Your task to perform on an android device: Open calendar and show me the fourth week of next month Image 0: 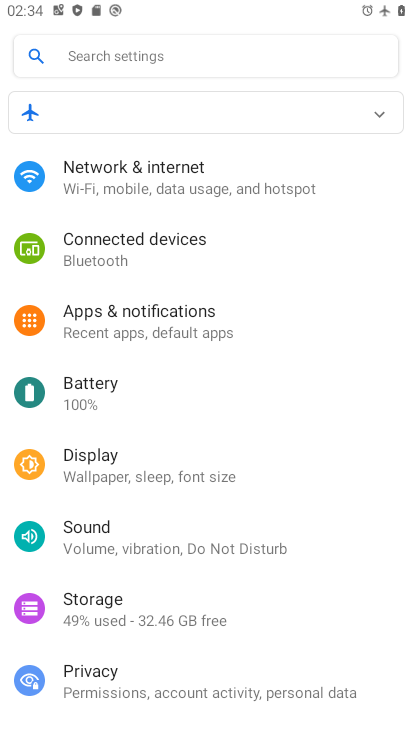
Step 0: press home button
Your task to perform on an android device: Open calendar and show me the fourth week of next month Image 1: 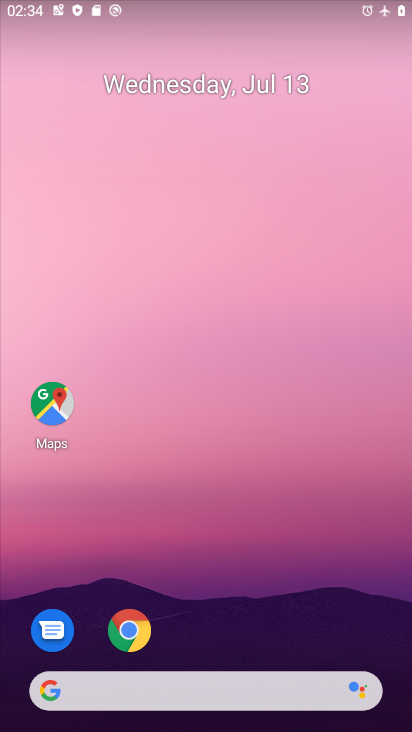
Step 1: drag from (220, 639) to (223, 262)
Your task to perform on an android device: Open calendar and show me the fourth week of next month Image 2: 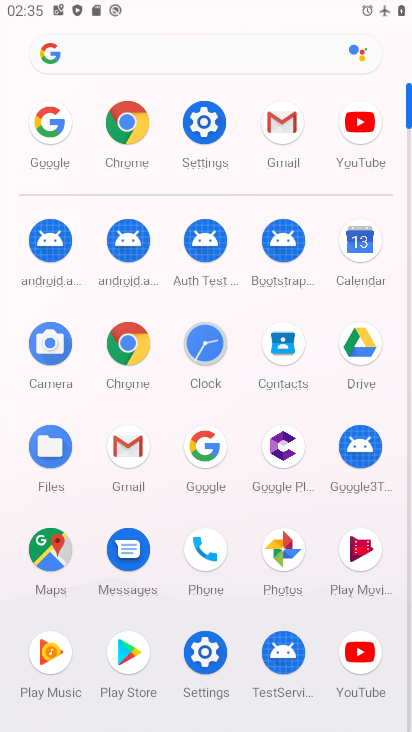
Step 2: click (357, 233)
Your task to perform on an android device: Open calendar and show me the fourth week of next month Image 3: 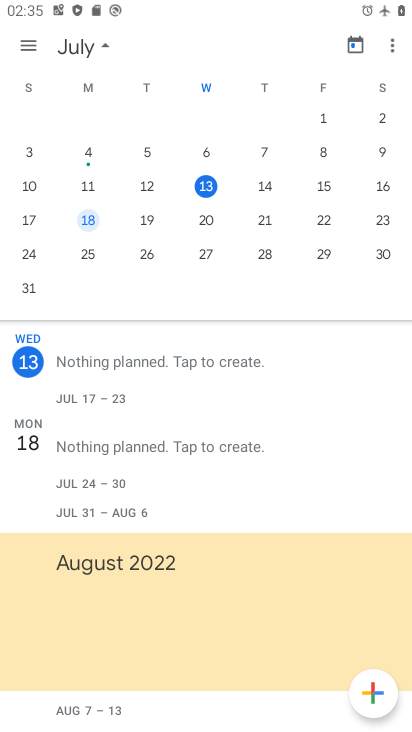
Step 3: drag from (296, 184) to (80, 193)
Your task to perform on an android device: Open calendar and show me the fourth week of next month Image 4: 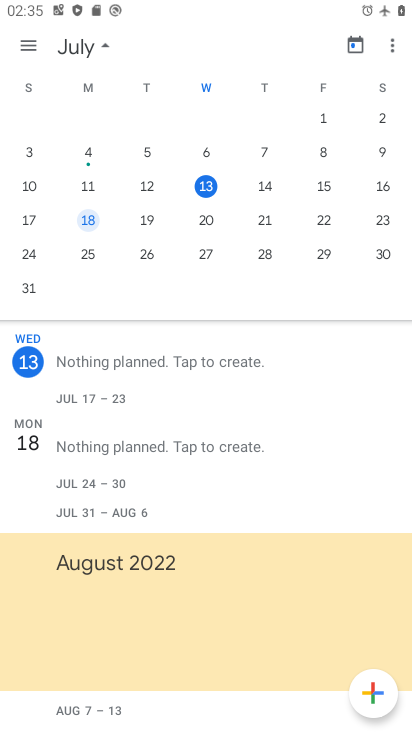
Step 4: drag from (349, 171) to (4, 185)
Your task to perform on an android device: Open calendar and show me the fourth week of next month Image 5: 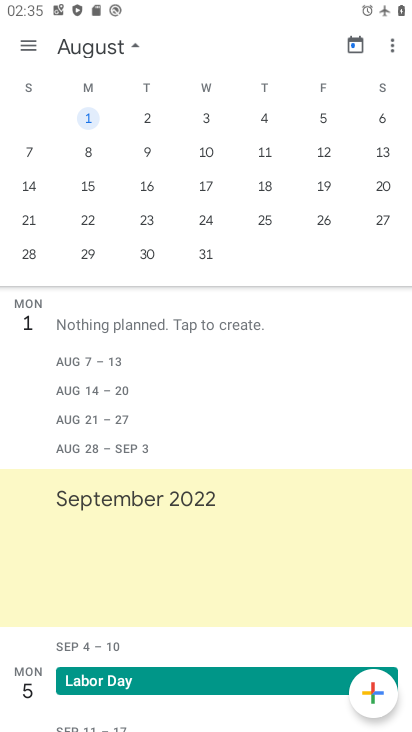
Step 5: click (341, 178)
Your task to perform on an android device: Open calendar and show me the fourth week of next month Image 6: 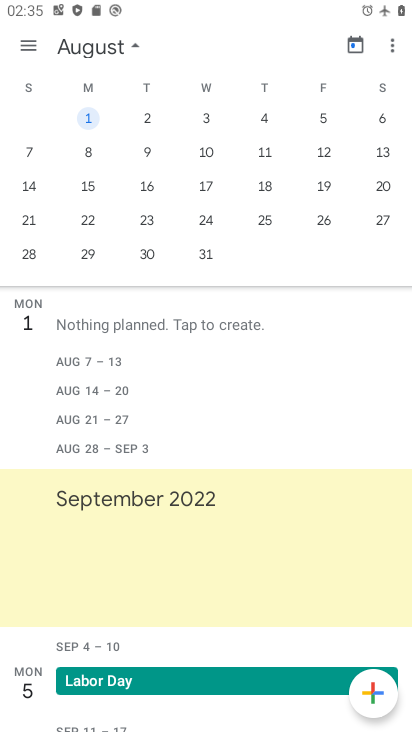
Step 6: click (28, 220)
Your task to perform on an android device: Open calendar and show me the fourth week of next month Image 7: 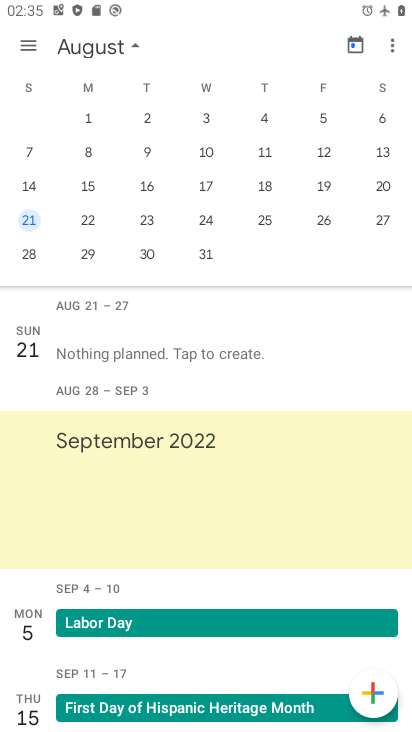
Step 7: task complete